Your task to perform on an android device: Open ESPN.com Image 0: 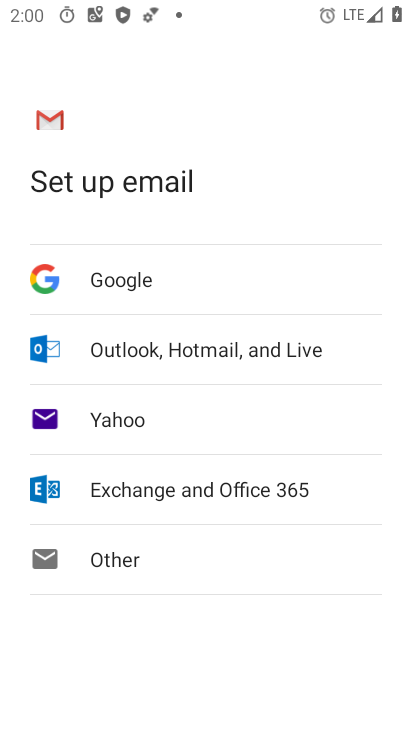
Step 0: press home button
Your task to perform on an android device: Open ESPN.com Image 1: 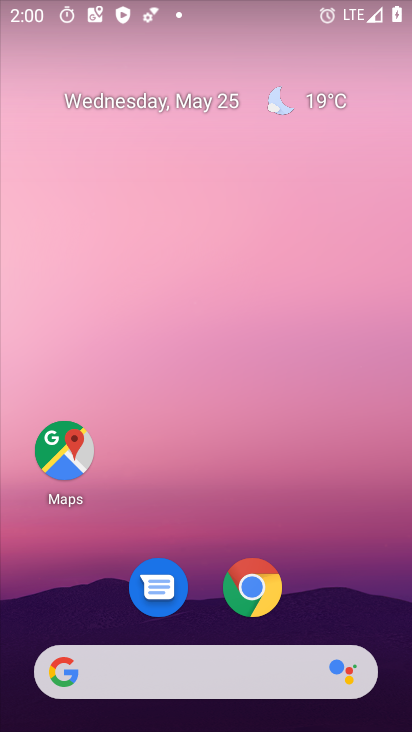
Step 1: click (254, 585)
Your task to perform on an android device: Open ESPN.com Image 2: 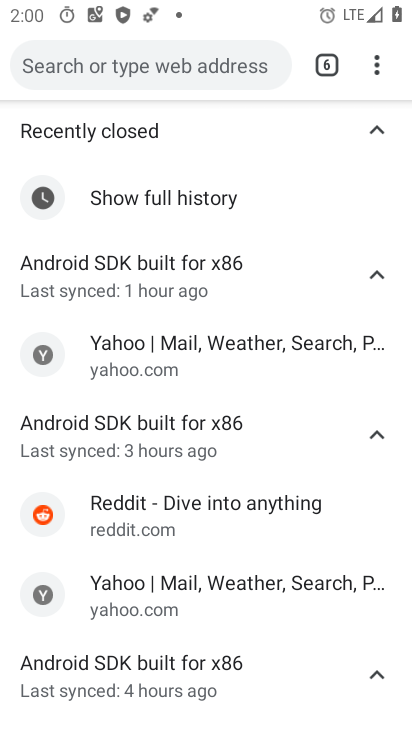
Step 2: click (378, 69)
Your task to perform on an android device: Open ESPN.com Image 3: 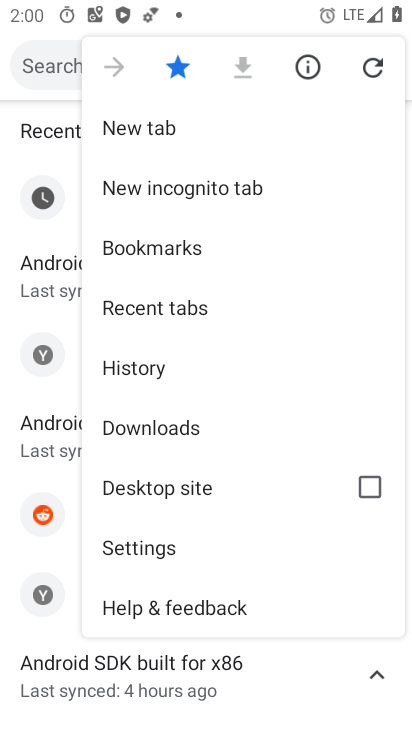
Step 3: click (129, 128)
Your task to perform on an android device: Open ESPN.com Image 4: 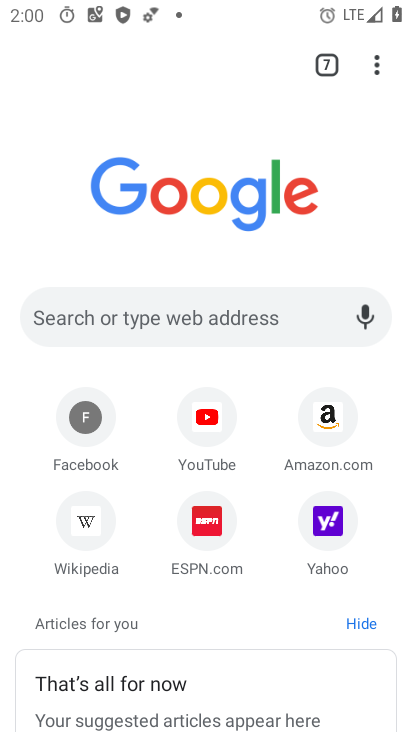
Step 4: click (207, 512)
Your task to perform on an android device: Open ESPN.com Image 5: 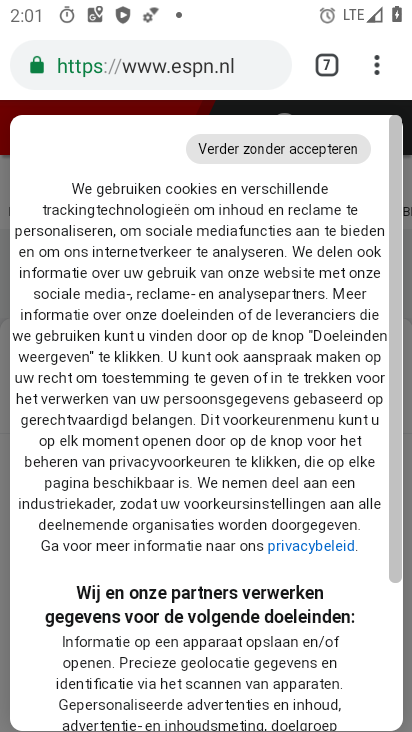
Step 5: drag from (154, 661) to (163, 428)
Your task to perform on an android device: Open ESPN.com Image 6: 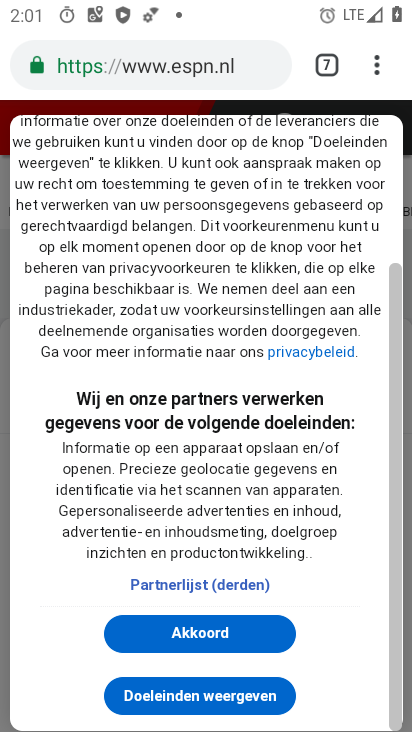
Step 6: click (207, 628)
Your task to perform on an android device: Open ESPN.com Image 7: 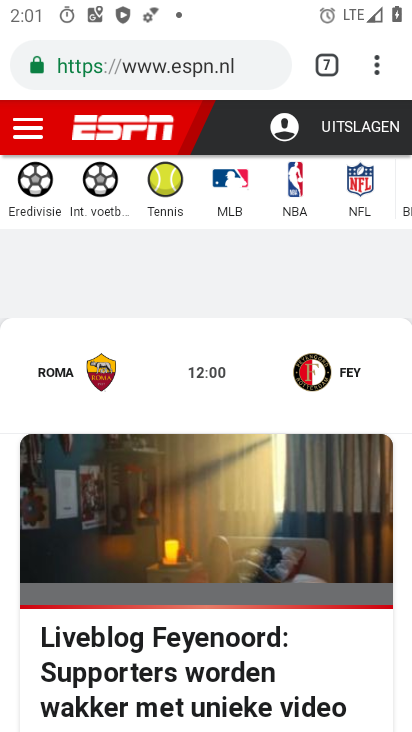
Step 7: task complete